Your task to perform on an android device: turn on bluetooth scan Image 0: 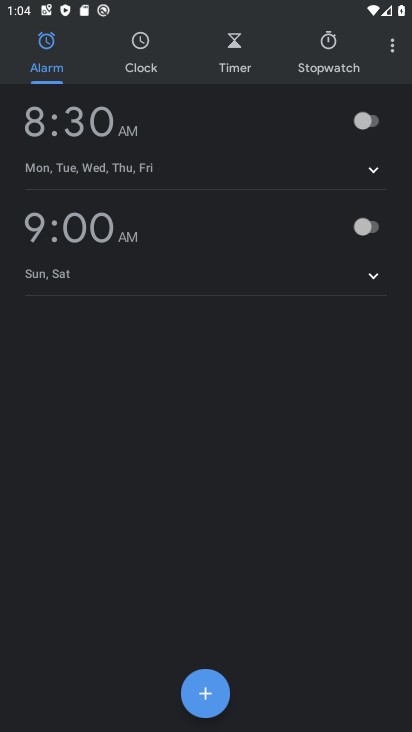
Step 0: press home button
Your task to perform on an android device: turn on bluetooth scan Image 1: 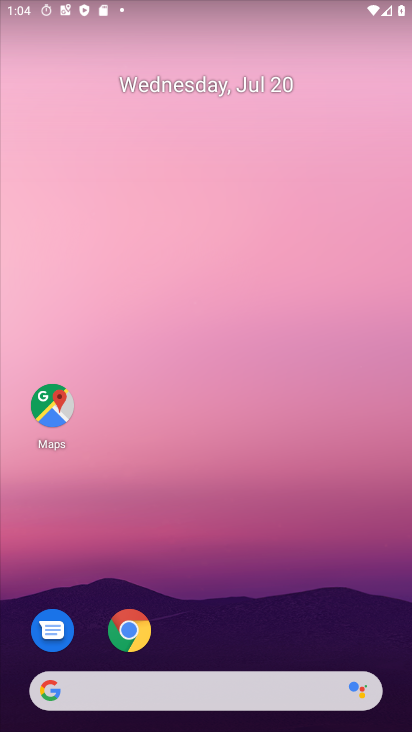
Step 1: drag from (290, 658) to (250, 175)
Your task to perform on an android device: turn on bluetooth scan Image 2: 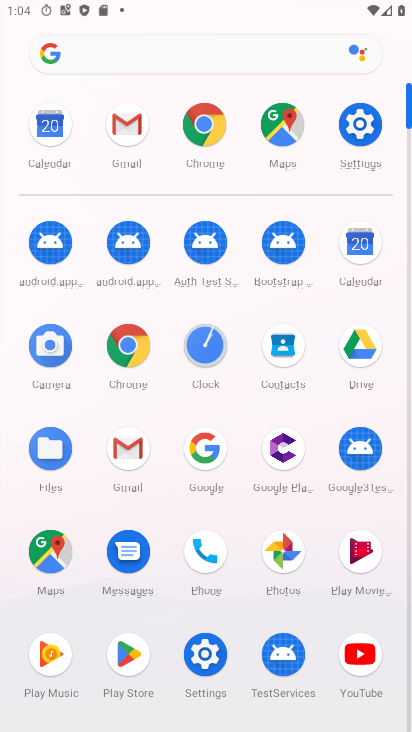
Step 2: click (358, 138)
Your task to perform on an android device: turn on bluetooth scan Image 3: 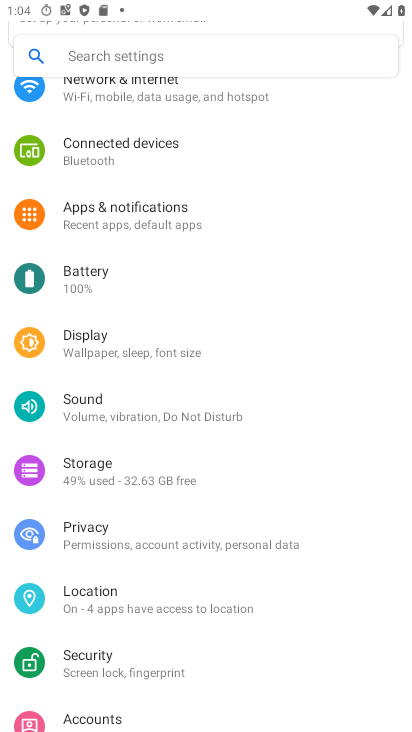
Step 3: click (112, 611)
Your task to perform on an android device: turn on bluetooth scan Image 4: 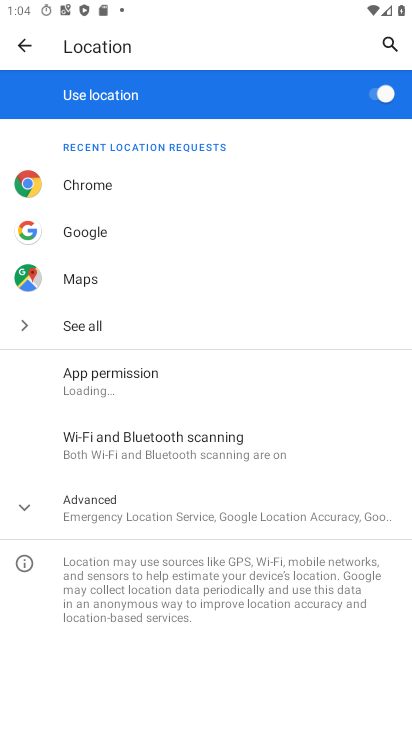
Step 4: click (244, 436)
Your task to perform on an android device: turn on bluetooth scan Image 5: 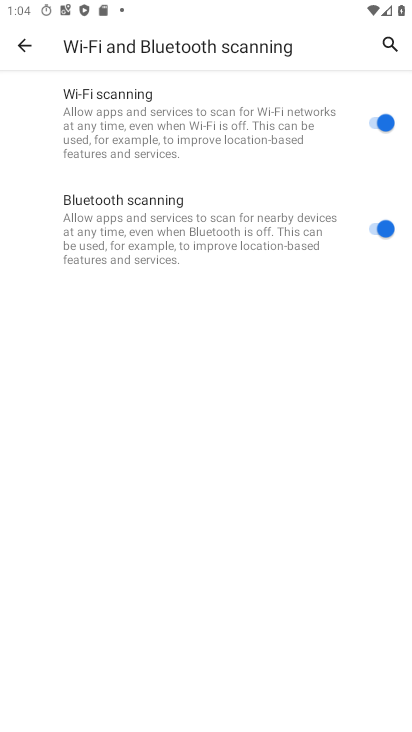
Step 5: task complete